Your task to perform on an android device: Open Amazon Image 0: 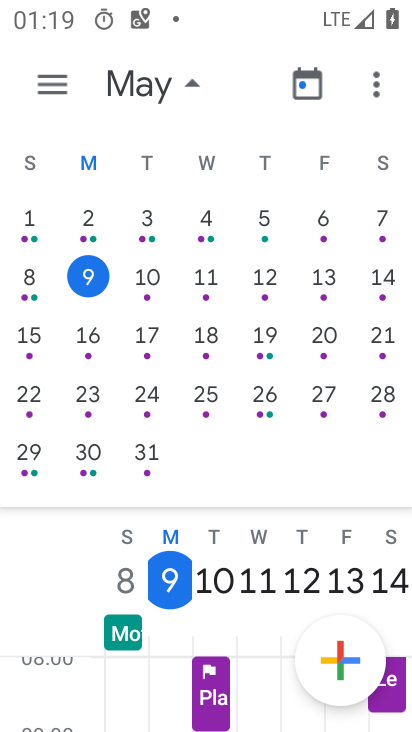
Step 0: press home button
Your task to perform on an android device: Open Amazon Image 1: 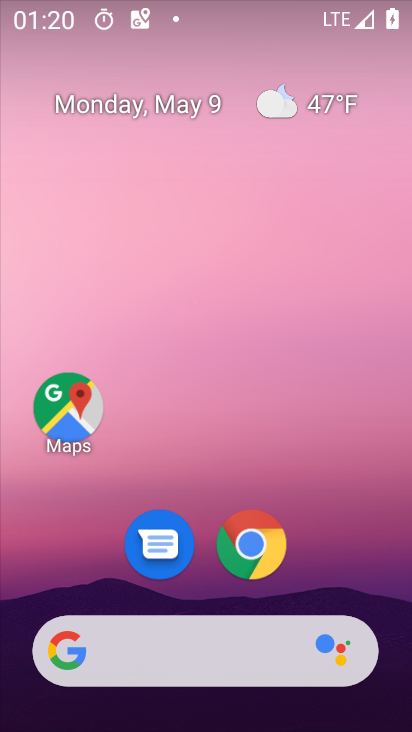
Step 1: drag from (267, 635) to (282, 176)
Your task to perform on an android device: Open Amazon Image 2: 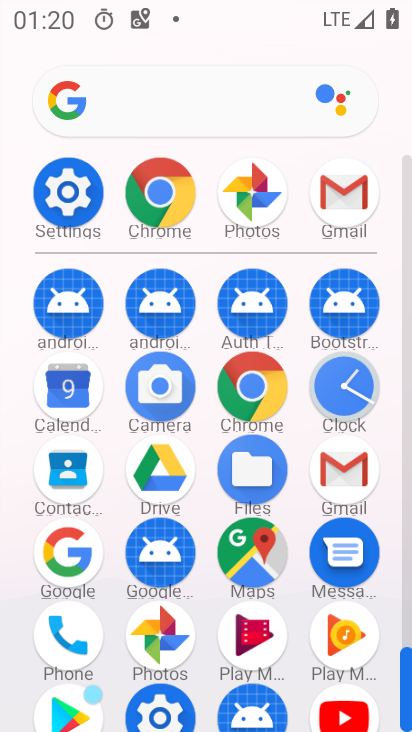
Step 2: click (250, 375)
Your task to perform on an android device: Open Amazon Image 3: 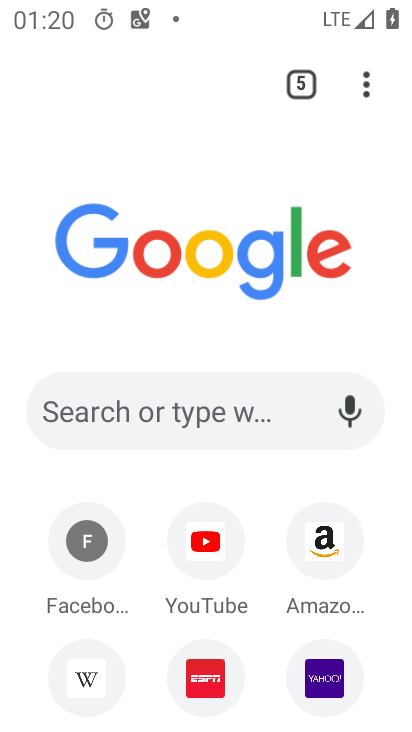
Step 3: click (347, 543)
Your task to perform on an android device: Open Amazon Image 4: 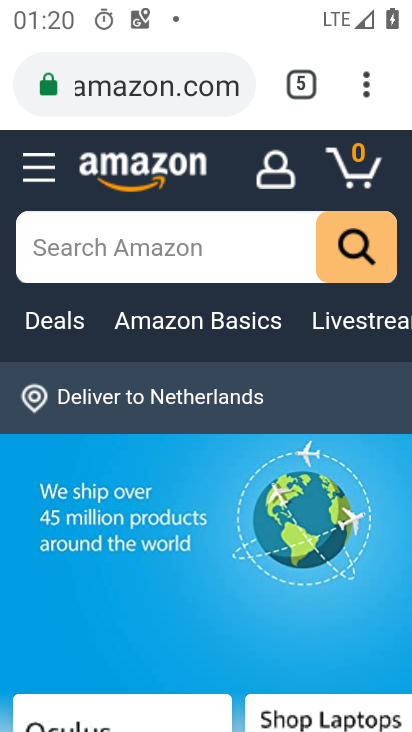
Step 4: task complete